Your task to perform on an android device: When is my next meeting? Image 0: 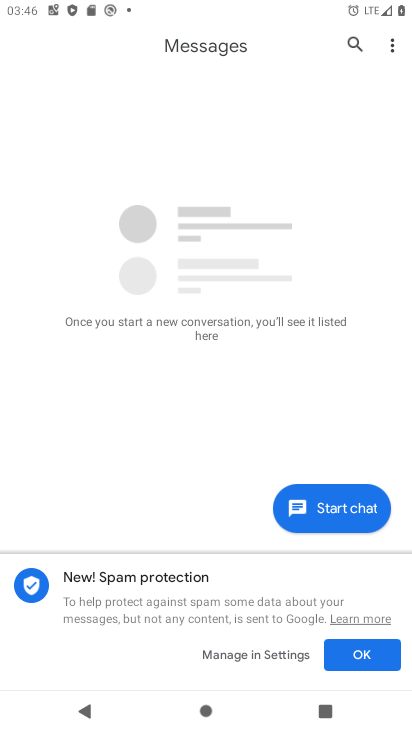
Step 0: press home button
Your task to perform on an android device: When is my next meeting? Image 1: 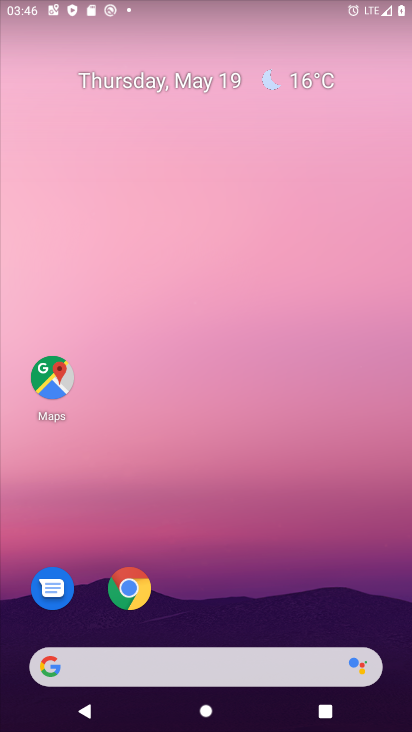
Step 1: drag from (281, 531) to (261, 4)
Your task to perform on an android device: When is my next meeting? Image 2: 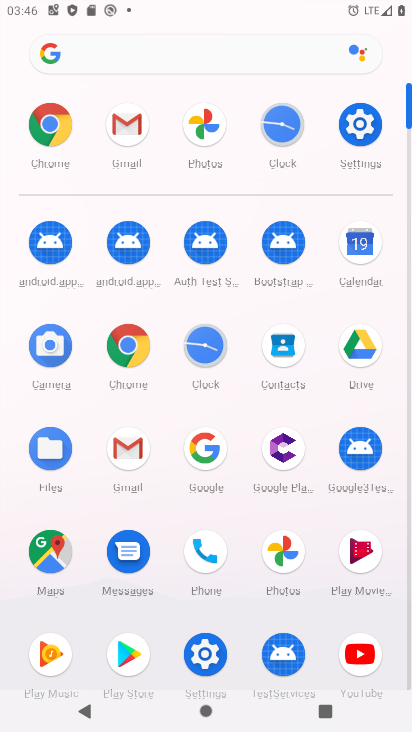
Step 2: click (366, 240)
Your task to perform on an android device: When is my next meeting? Image 3: 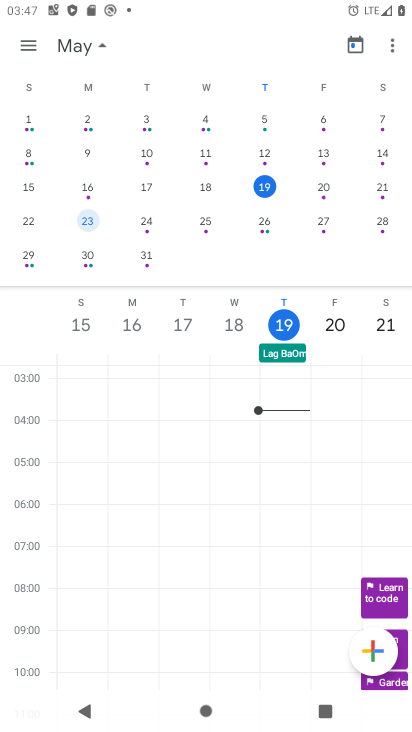
Step 3: task complete